Your task to perform on an android device: Open network settings Image 0: 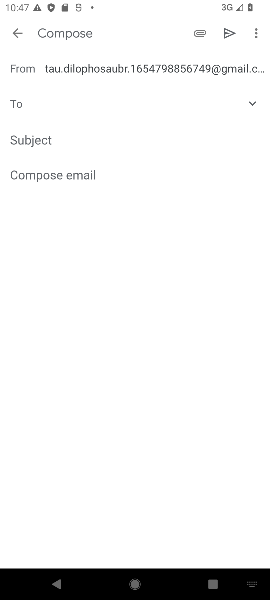
Step 0: press home button
Your task to perform on an android device: Open network settings Image 1: 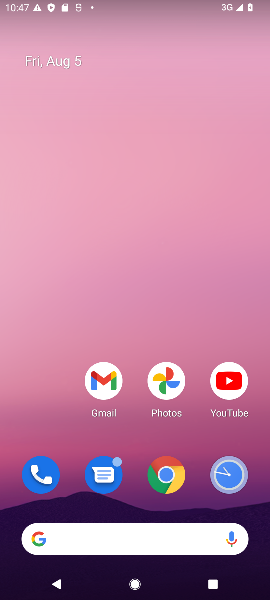
Step 1: drag from (125, 497) to (128, 16)
Your task to perform on an android device: Open network settings Image 2: 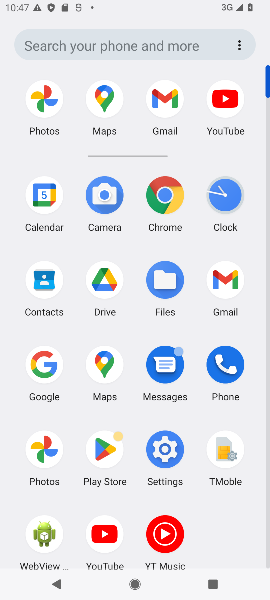
Step 2: click (170, 454)
Your task to perform on an android device: Open network settings Image 3: 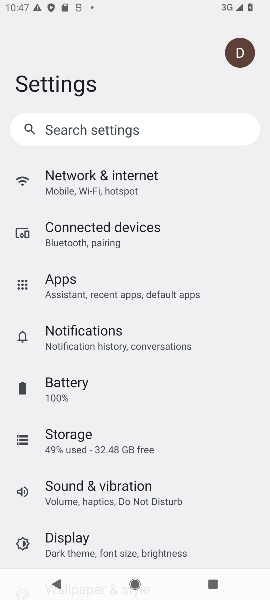
Step 3: click (103, 187)
Your task to perform on an android device: Open network settings Image 4: 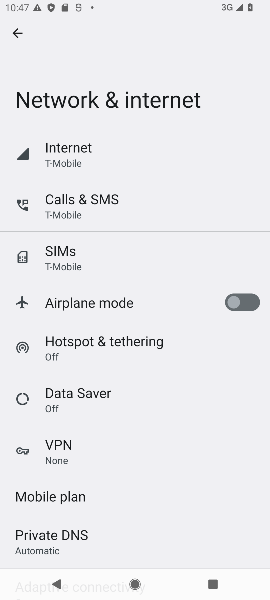
Step 4: click (72, 150)
Your task to perform on an android device: Open network settings Image 5: 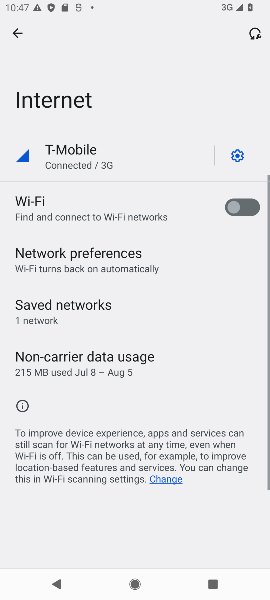
Step 5: click (233, 161)
Your task to perform on an android device: Open network settings Image 6: 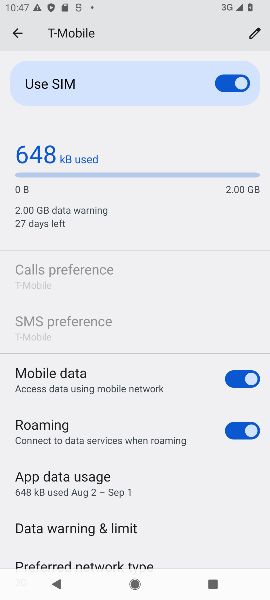
Step 6: task complete